Your task to perform on an android device: Search for the best rated 2021 Samsung Galaxy S21 Ultra on AliExpress Image 0: 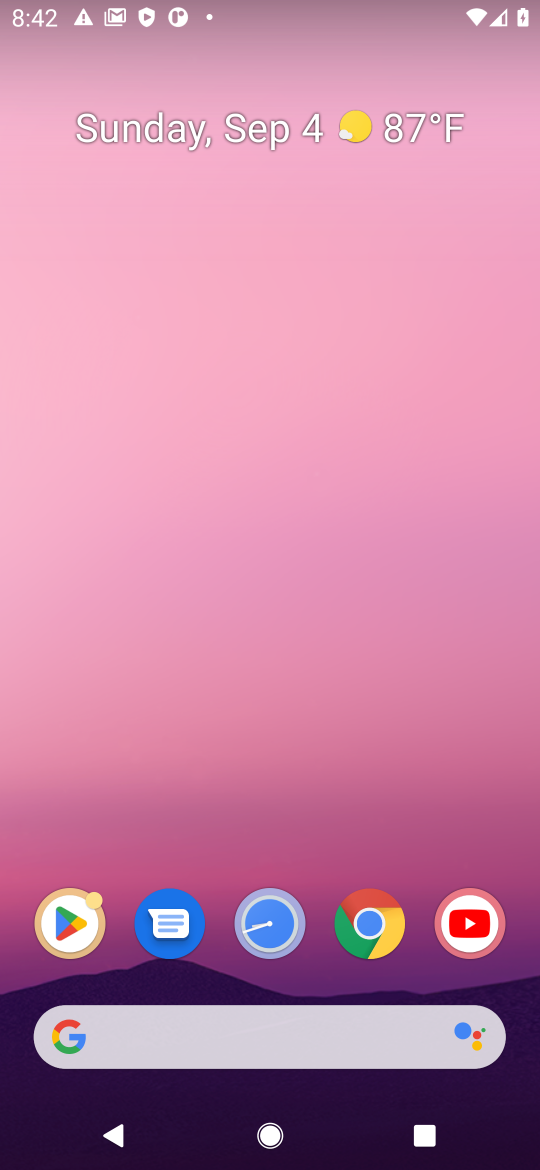
Step 0: press home button
Your task to perform on an android device: Search for the best rated 2021 Samsung Galaxy S21 Ultra on AliExpress Image 1: 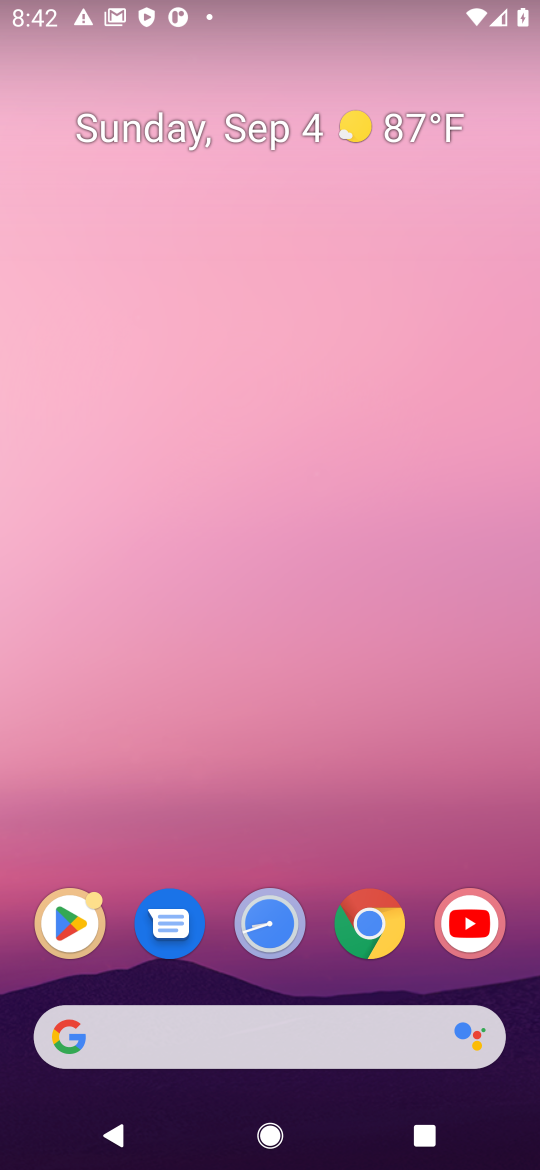
Step 1: click (381, 1034)
Your task to perform on an android device: Search for the best rated 2021 Samsung Galaxy S21 Ultra on AliExpress Image 2: 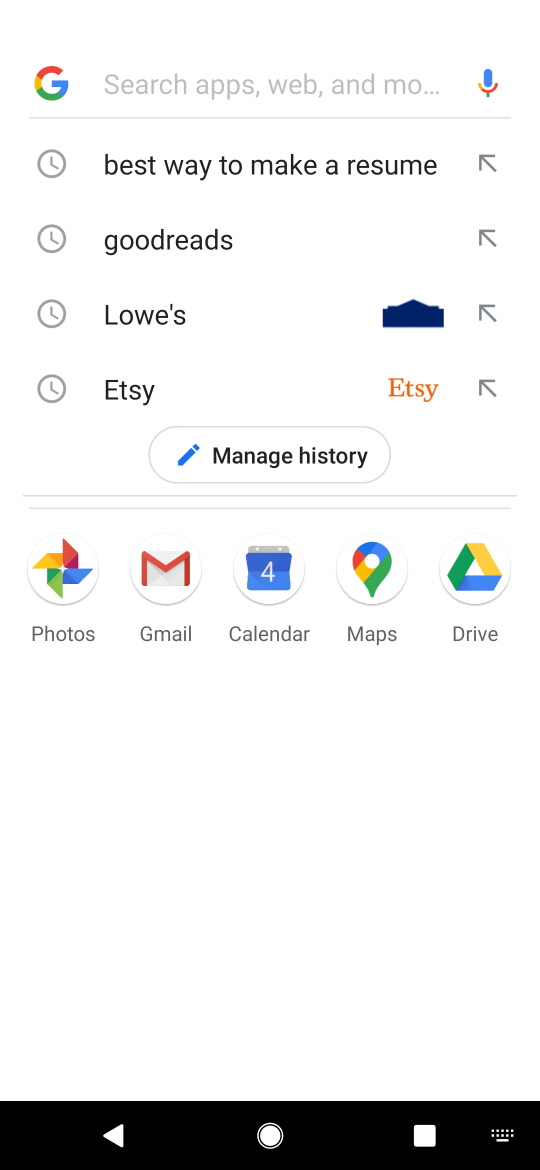
Step 2: press enter
Your task to perform on an android device: Search for the best rated 2021 Samsung Galaxy S21 Ultra on AliExpress Image 3: 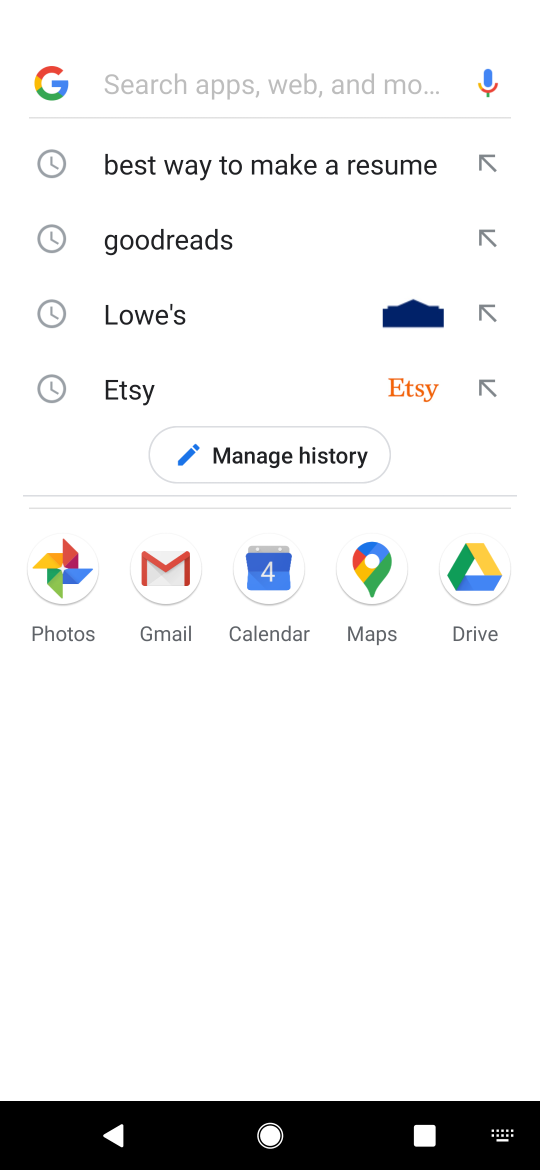
Step 3: type "aliexpress"
Your task to perform on an android device: Search for the best rated 2021 Samsung Galaxy S21 Ultra on AliExpress Image 4: 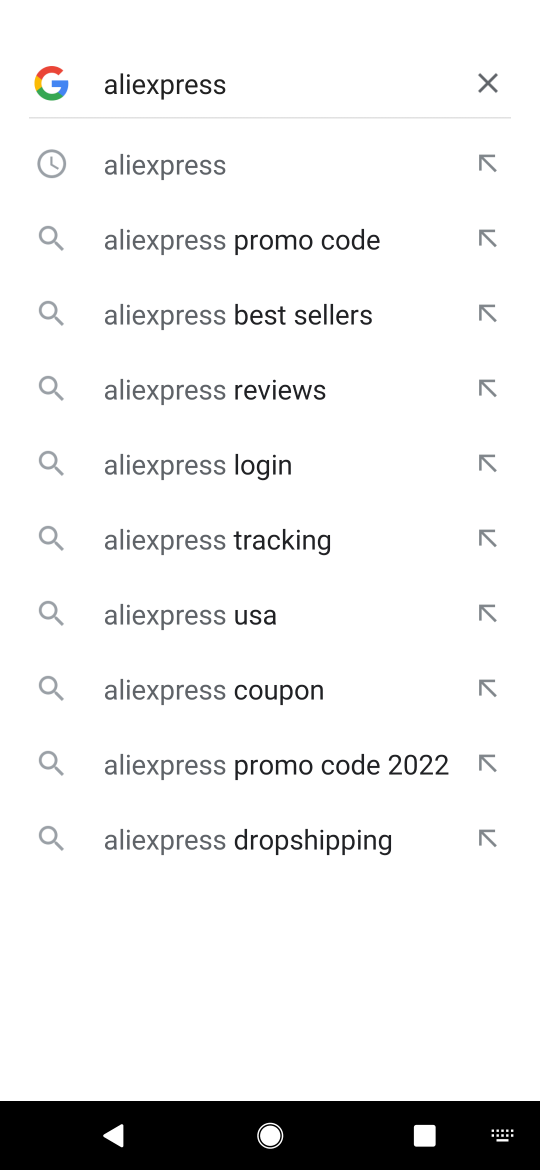
Step 4: click (211, 167)
Your task to perform on an android device: Search for the best rated 2021 Samsung Galaxy S21 Ultra on AliExpress Image 5: 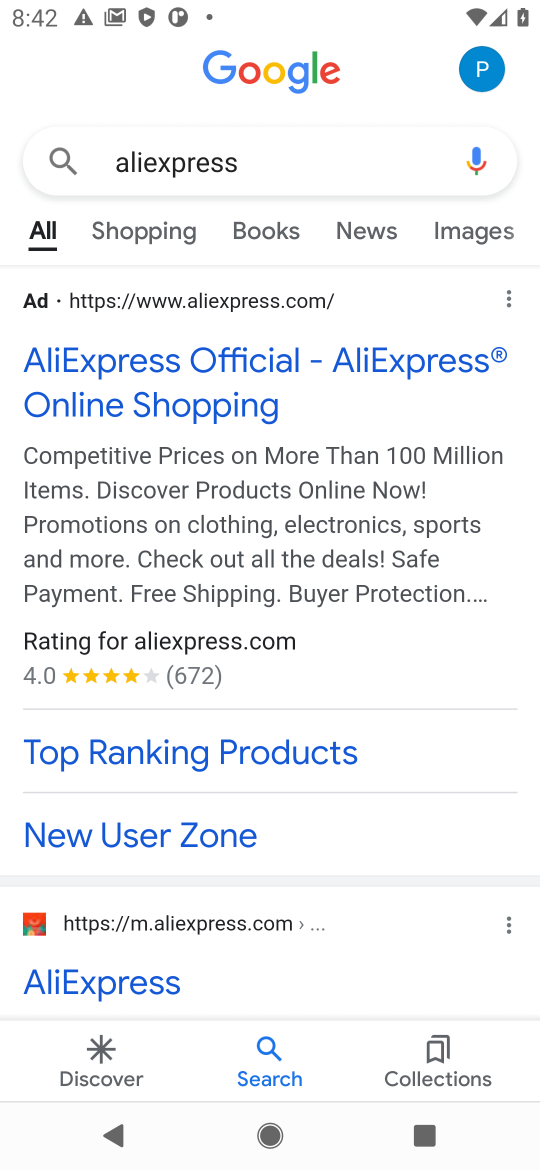
Step 5: click (163, 371)
Your task to perform on an android device: Search for the best rated 2021 Samsung Galaxy S21 Ultra on AliExpress Image 6: 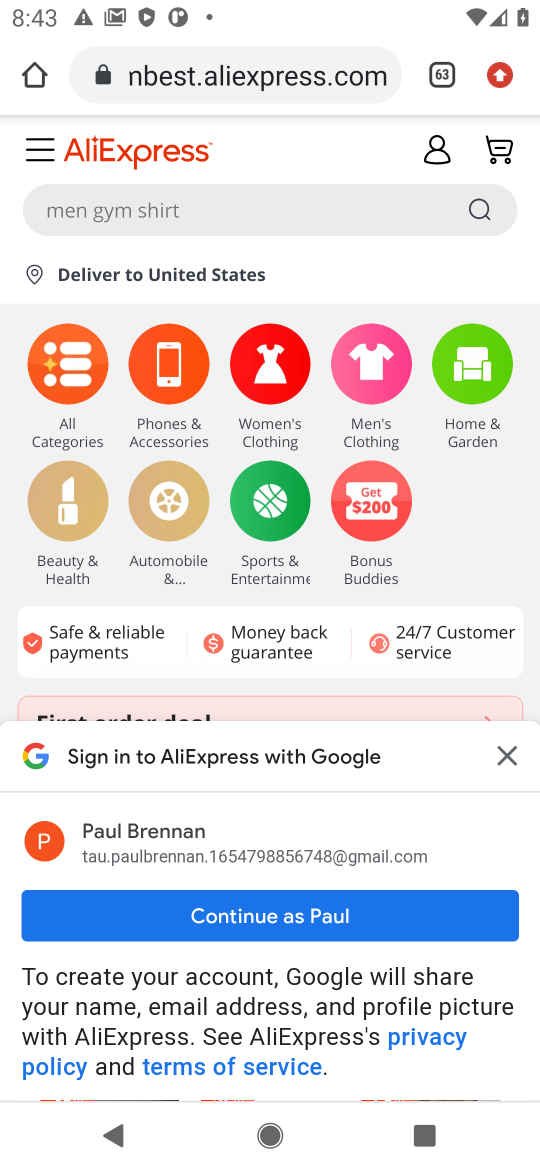
Step 6: click (504, 748)
Your task to perform on an android device: Search for the best rated 2021 Samsung Galaxy S21 Ultra on AliExpress Image 7: 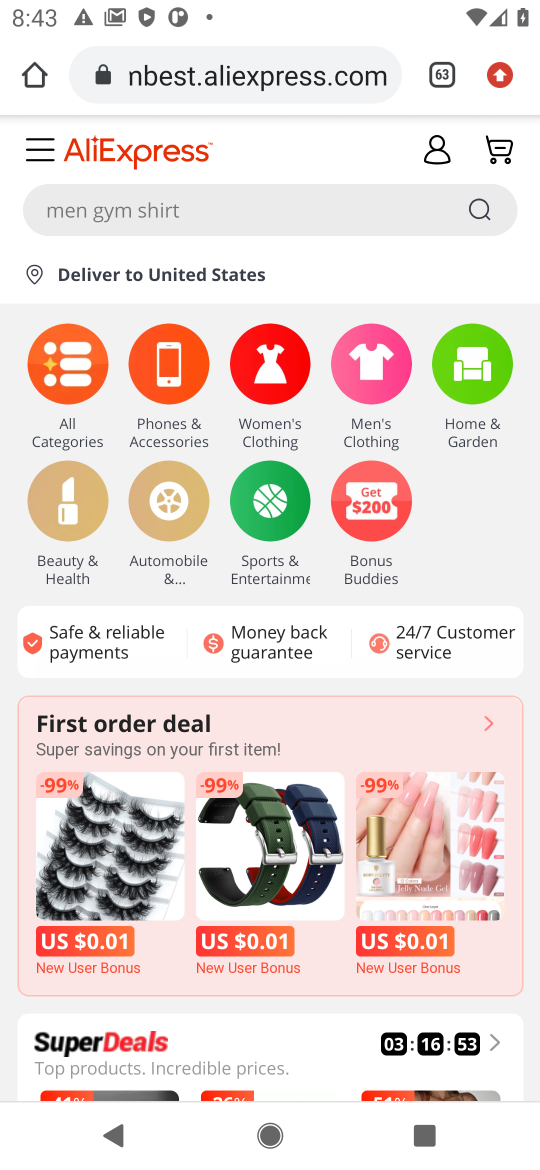
Step 7: click (81, 201)
Your task to perform on an android device: Search for the best rated 2021 Samsung Galaxy S21 Ultra on AliExpress Image 8: 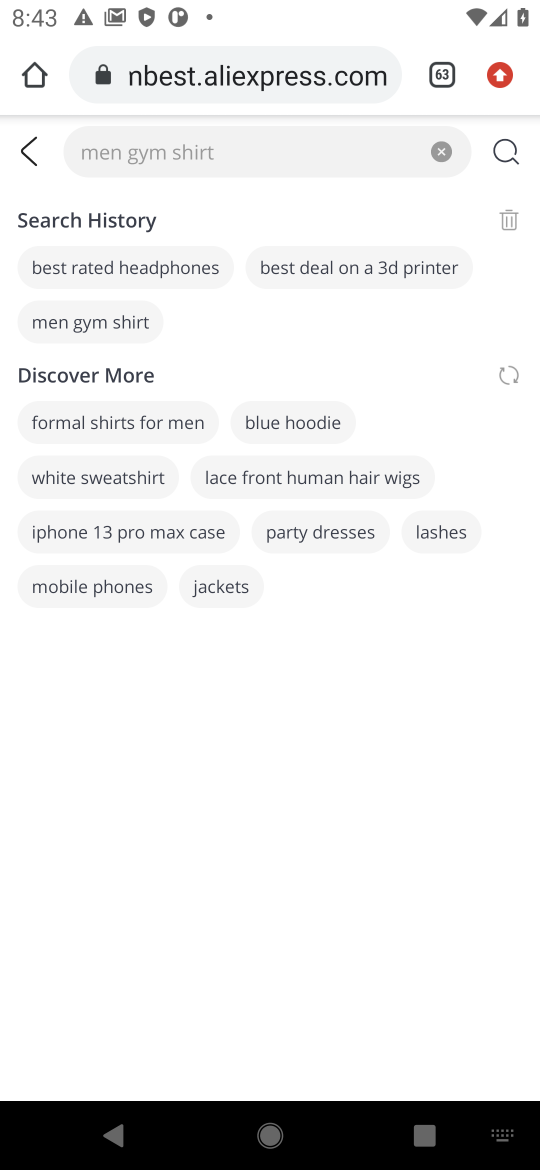
Step 8: type "best rated 2021 Samsung Galaxy S21 Ultra"
Your task to perform on an android device: Search for the best rated 2021 Samsung Galaxy S21 Ultra on AliExpress Image 9: 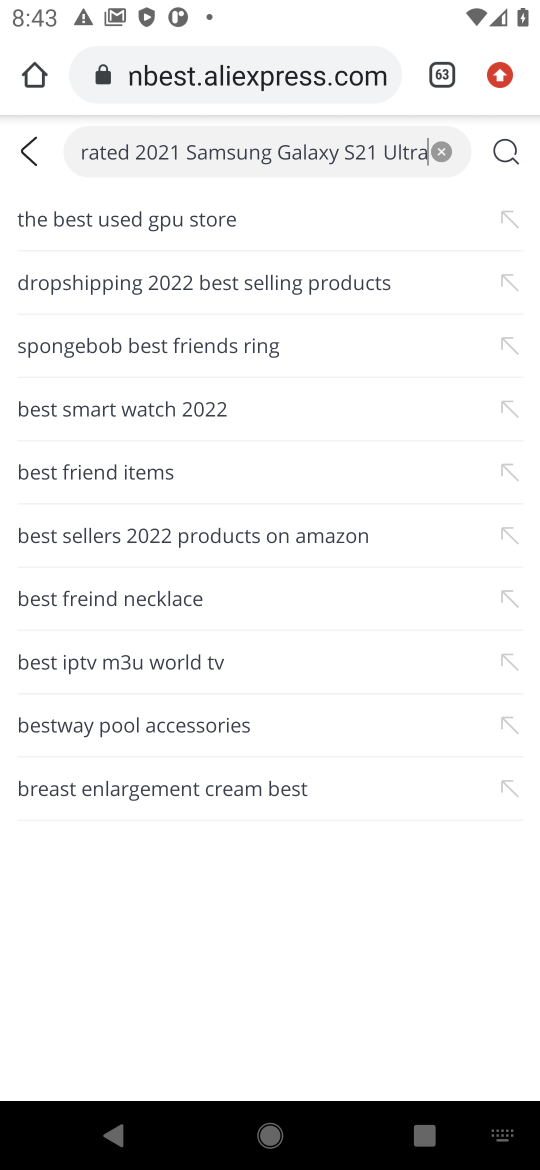
Step 9: click (514, 148)
Your task to perform on an android device: Search for the best rated 2021 Samsung Galaxy S21 Ultra on AliExpress Image 10: 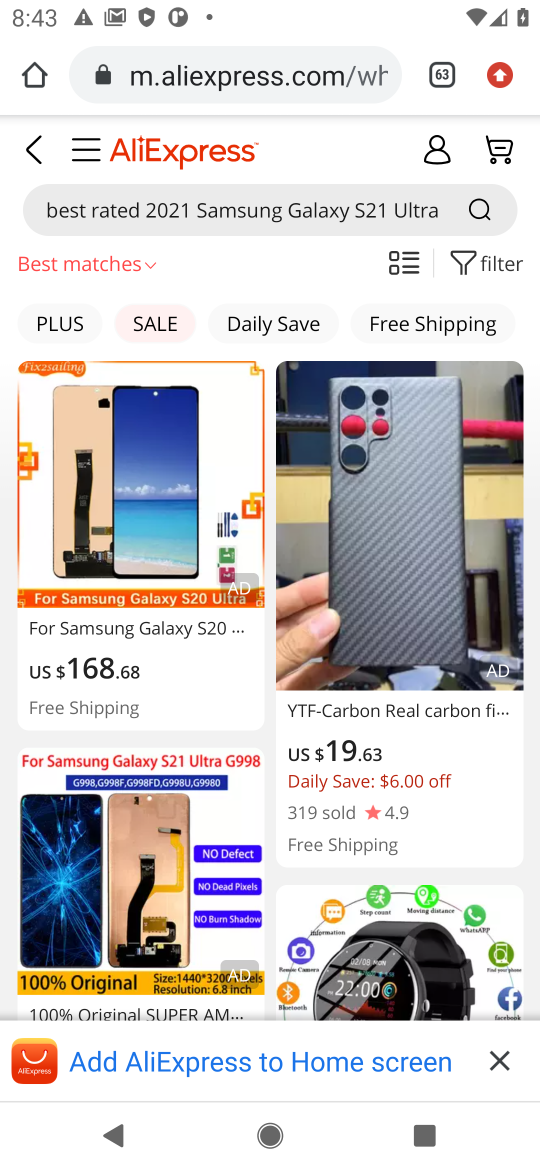
Step 10: task complete